Your task to perform on an android device: Go to internet settings Image 0: 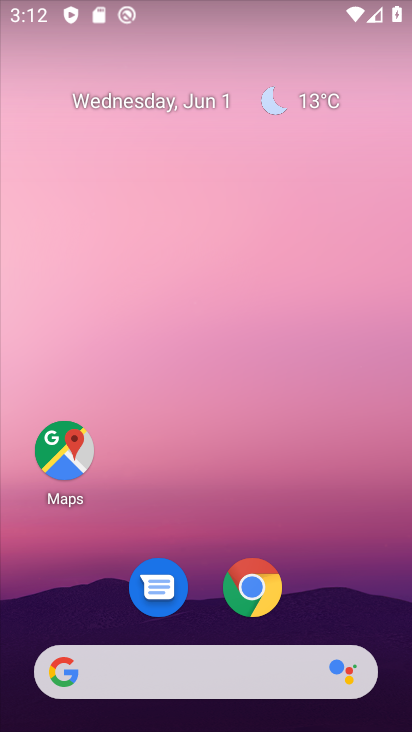
Step 0: drag from (307, 445) to (191, 23)
Your task to perform on an android device: Go to internet settings Image 1: 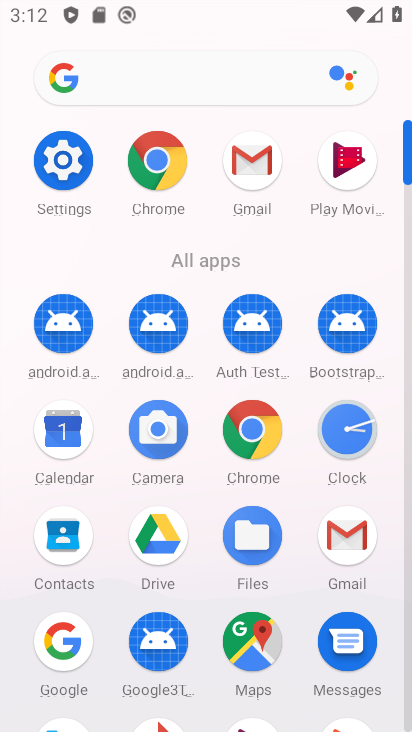
Step 1: click (65, 155)
Your task to perform on an android device: Go to internet settings Image 2: 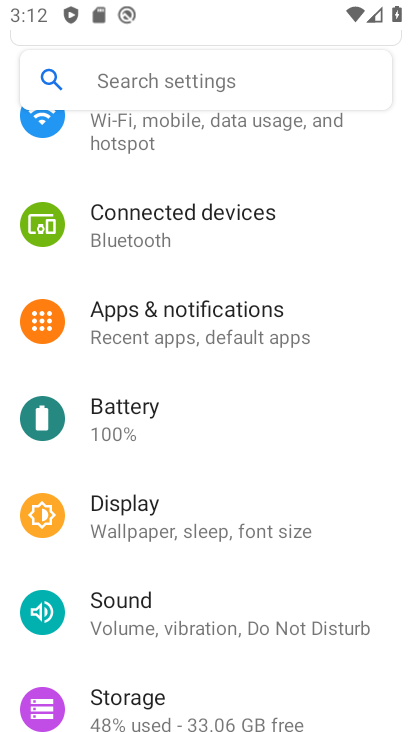
Step 2: drag from (313, 222) to (314, 634)
Your task to perform on an android device: Go to internet settings Image 3: 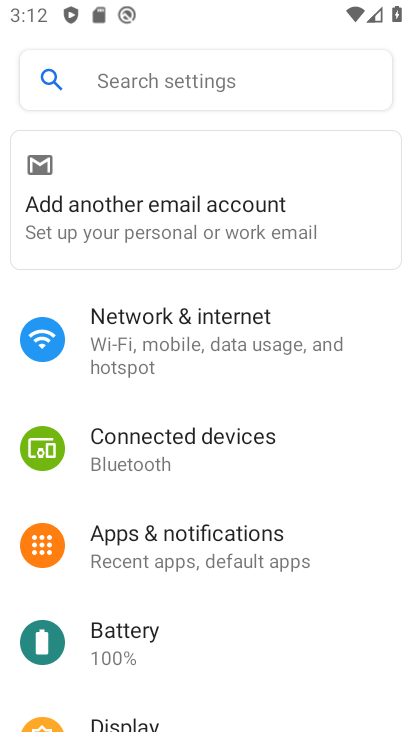
Step 3: click (266, 332)
Your task to perform on an android device: Go to internet settings Image 4: 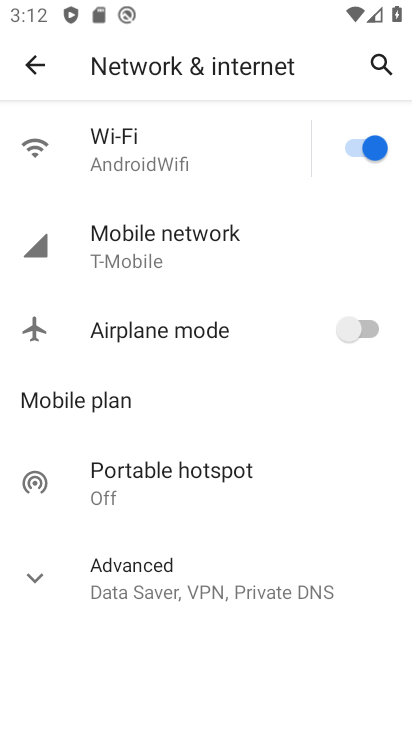
Step 4: click (48, 575)
Your task to perform on an android device: Go to internet settings Image 5: 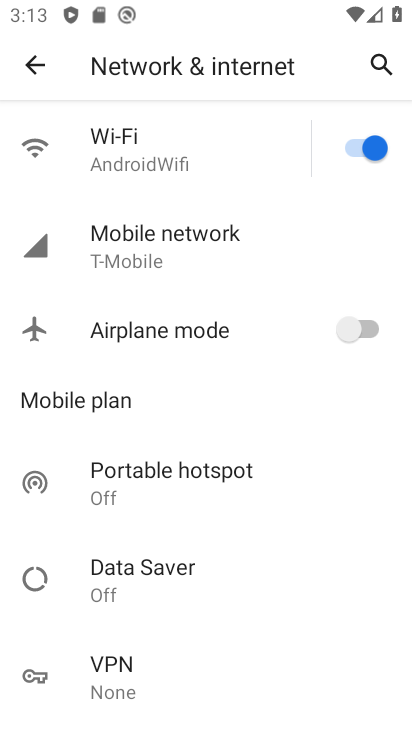
Step 5: task complete